Your task to perform on an android device: Clear all items from cart on newegg.com. Image 0: 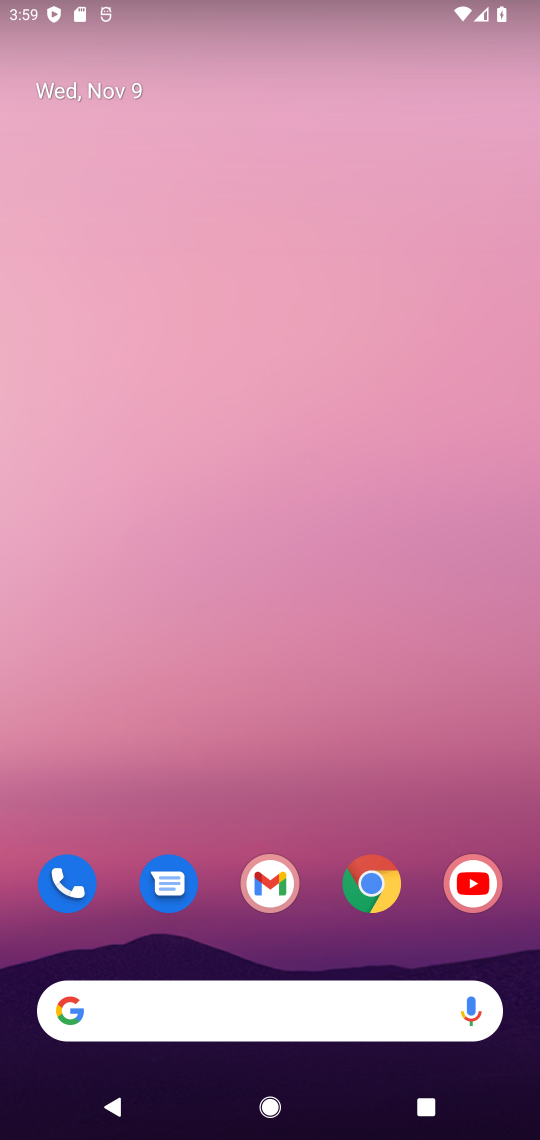
Step 0: click (373, 899)
Your task to perform on an android device: Clear all items from cart on newegg.com. Image 1: 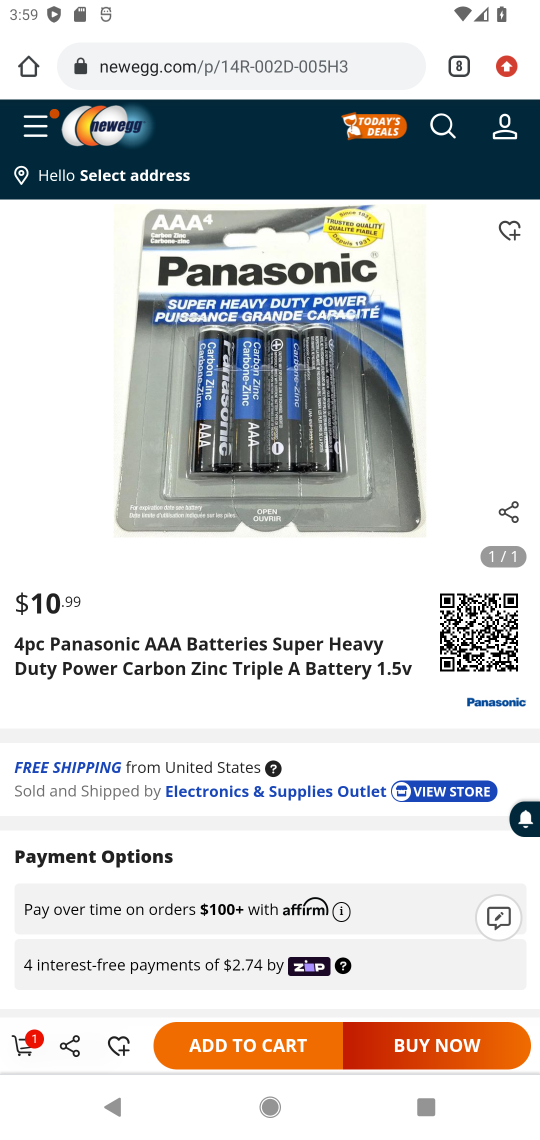
Step 1: click (25, 1051)
Your task to perform on an android device: Clear all items from cart on newegg.com. Image 2: 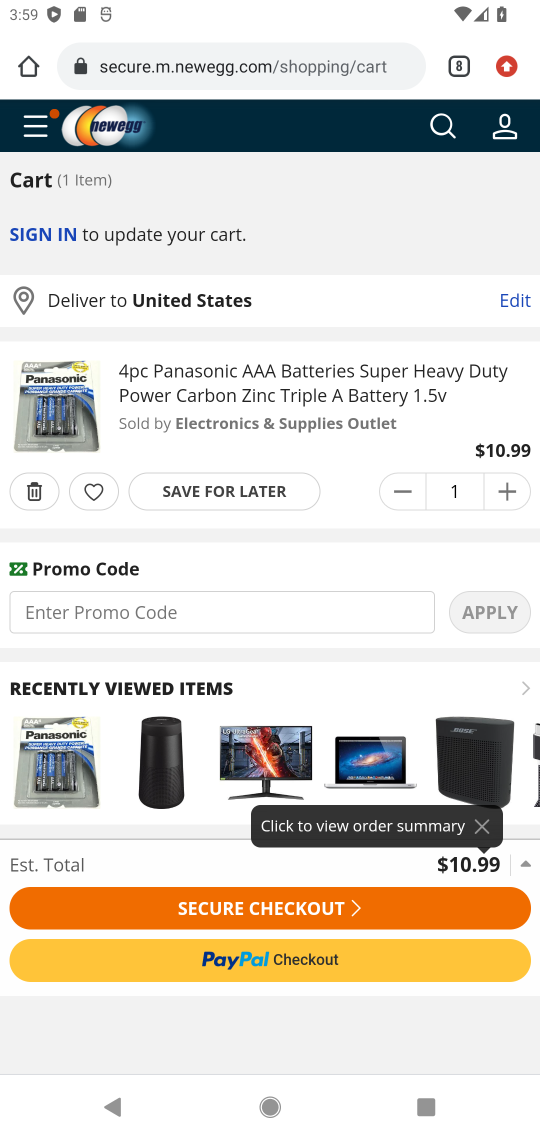
Step 2: click (35, 493)
Your task to perform on an android device: Clear all items from cart on newegg.com. Image 3: 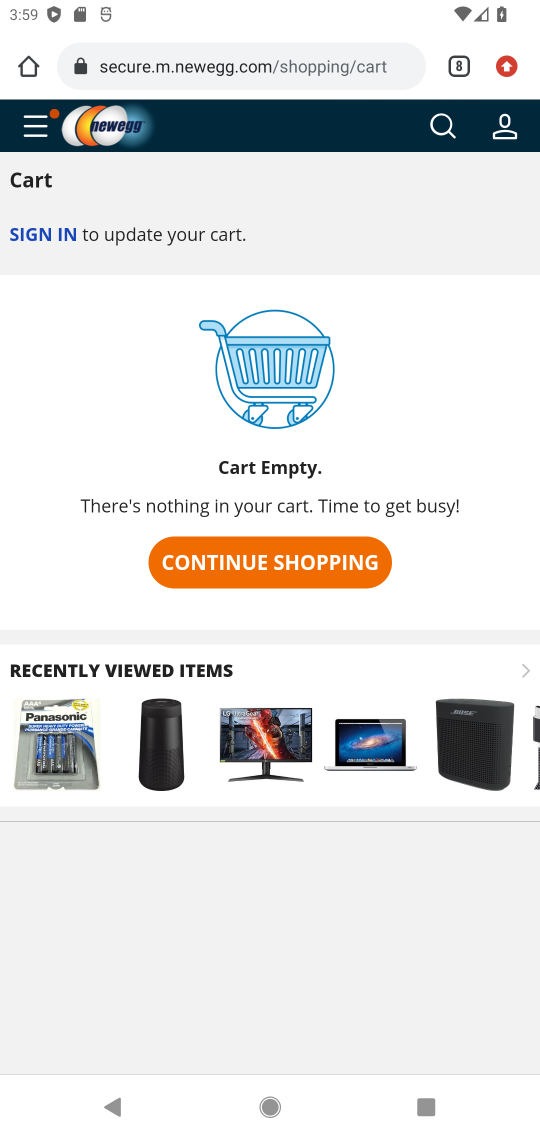
Step 3: task complete